Your task to perform on an android device: Open Google Maps and go to "Timeline" Image 0: 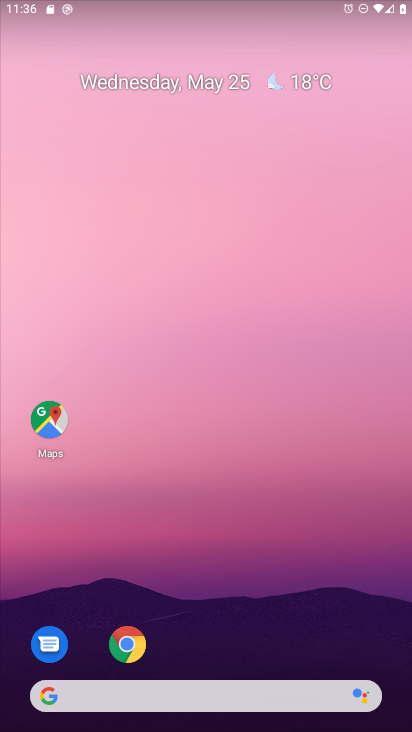
Step 0: press home button
Your task to perform on an android device: Open Google Maps and go to "Timeline" Image 1: 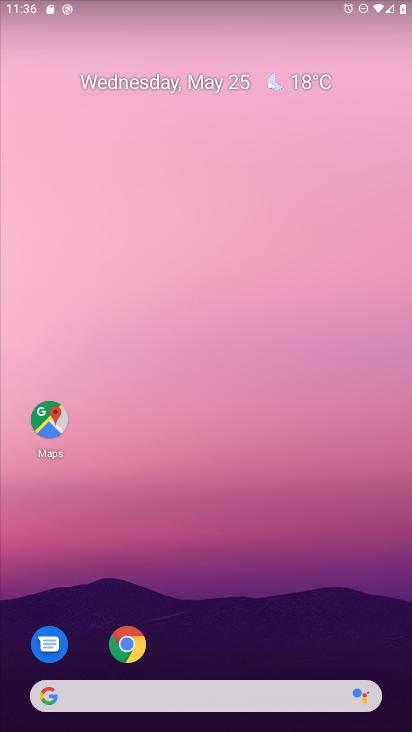
Step 1: press home button
Your task to perform on an android device: Open Google Maps and go to "Timeline" Image 2: 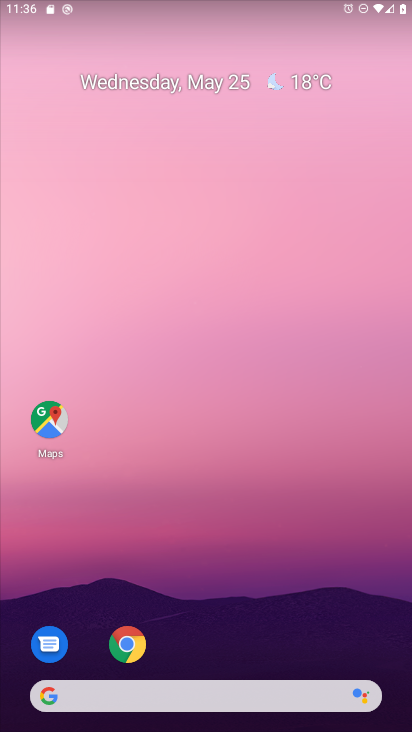
Step 2: drag from (193, 659) to (227, 68)
Your task to perform on an android device: Open Google Maps and go to "Timeline" Image 3: 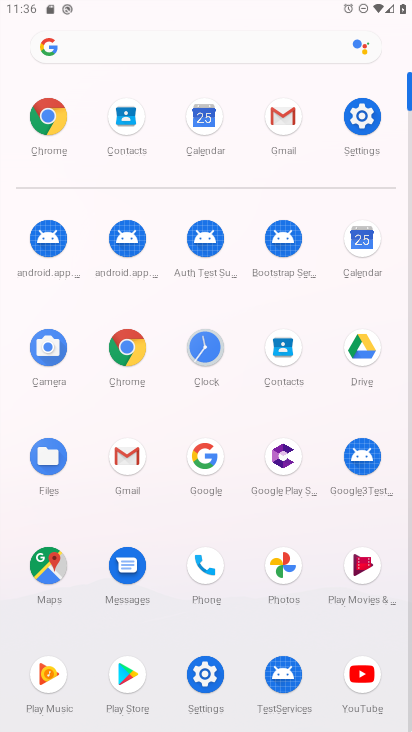
Step 3: click (49, 560)
Your task to perform on an android device: Open Google Maps and go to "Timeline" Image 4: 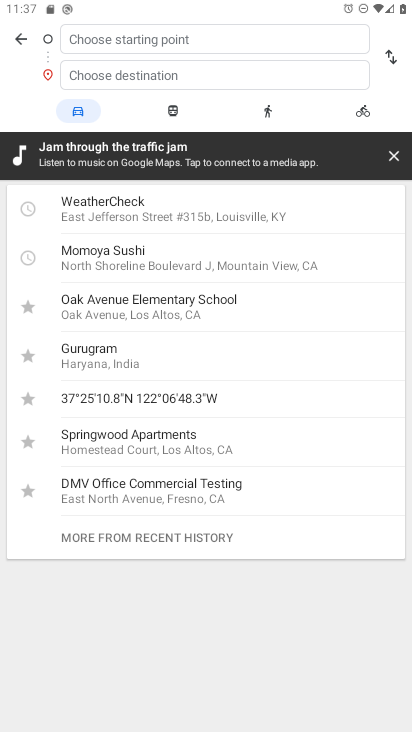
Step 4: click (20, 42)
Your task to perform on an android device: Open Google Maps and go to "Timeline" Image 5: 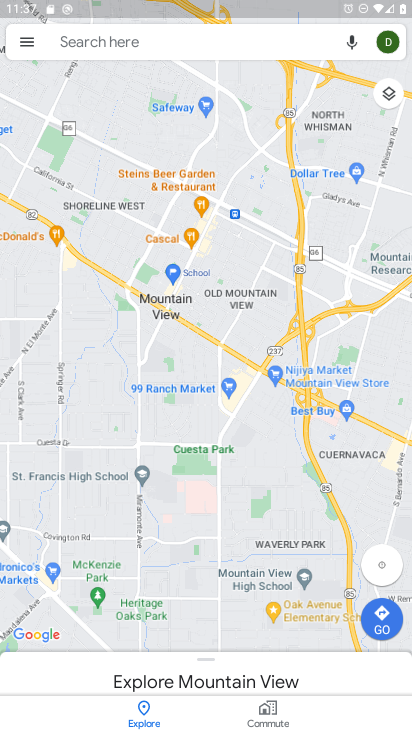
Step 5: click (24, 42)
Your task to perform on an android device: Open Google Maps and go to "Timeline" Image 6: 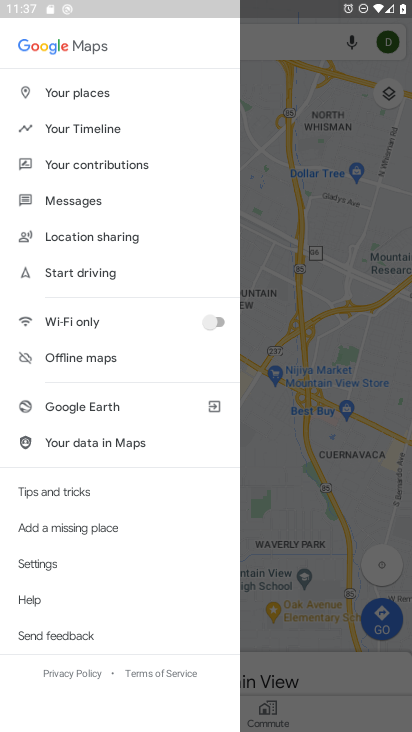
Step 6: click (126, 126)
Your task to perform on an android device: Open Google Maps and go to "Timeline" Image 7: 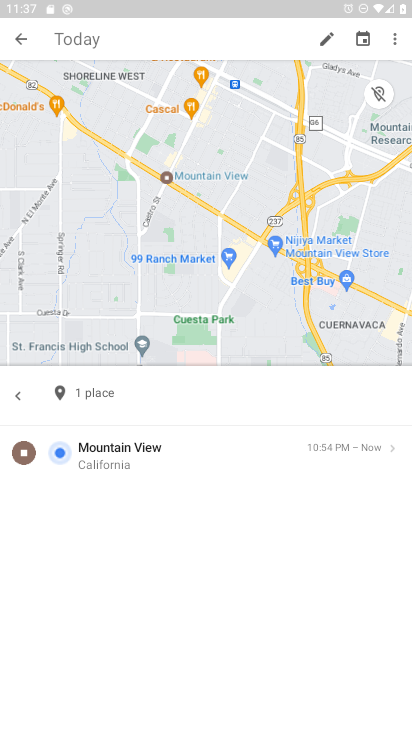
Step 7: task complete